Your task to perform on an android device: change the clock display to digital Image 0: 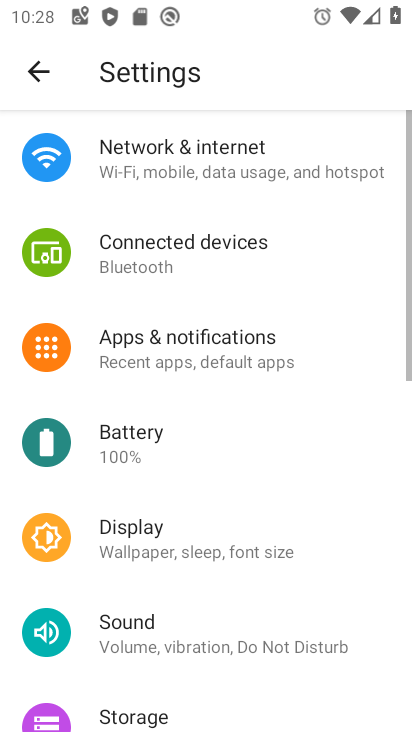
Step 0: press home button
Your task to perform on an android device: change the clock display to digital Image 1: 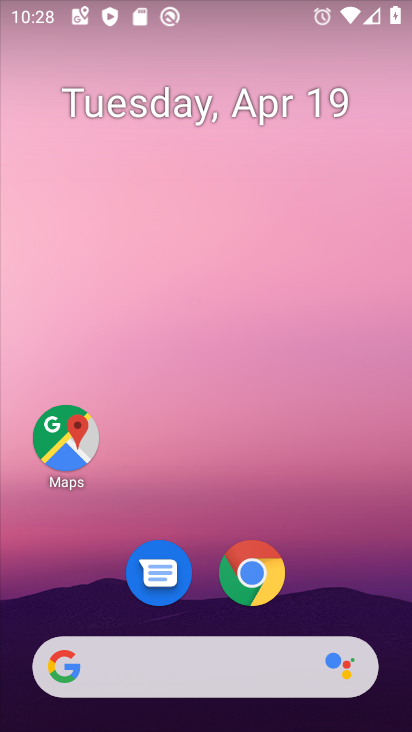
Step 1: drag from (348, 599) to (304, 136)
Your task to perform on an android device: change the clock display to digital Image 2: 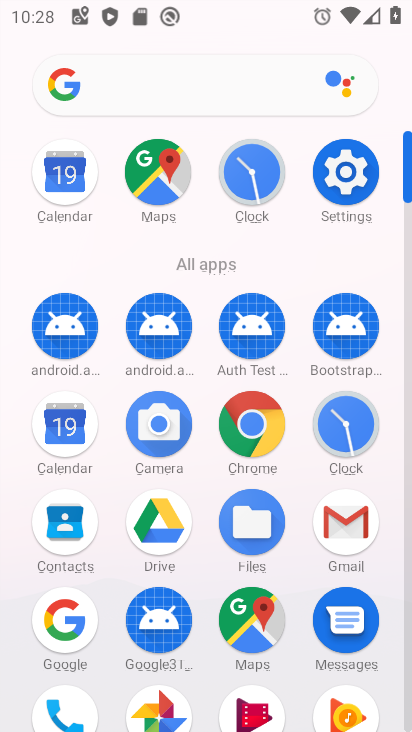
Step 2: click (250, 182)
Your task to perform on an android device: change the clock display to digital Image 3: 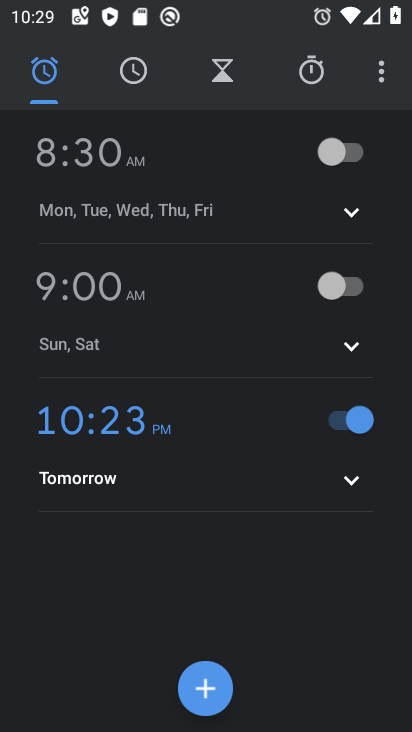
Step 3: click (386, 67)
Your task to perform on an android device: change the clock display to digital Image 4: 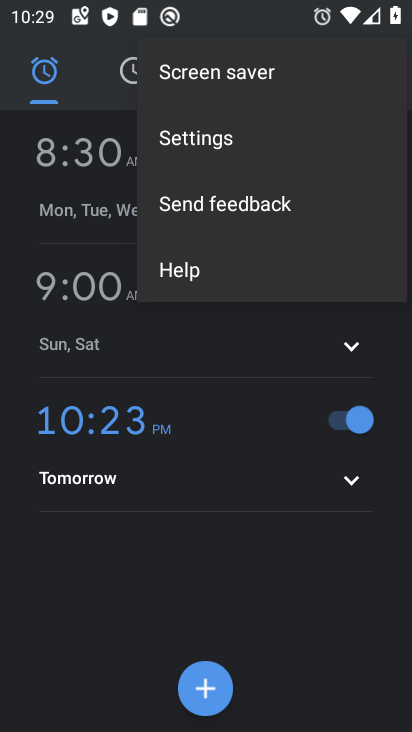
Step 4: click (226, 136)
Your task to perform on an android device: change the clock display to digital Image 5: 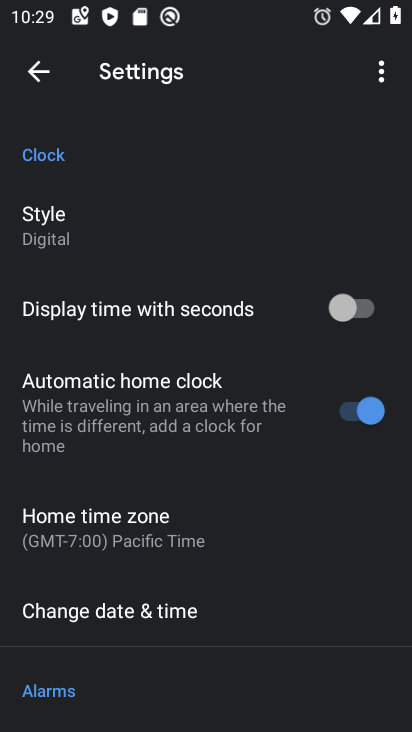
Step 5: click (50, 241)
Your task to perform on an android device: change the clock display to digital Image 6: 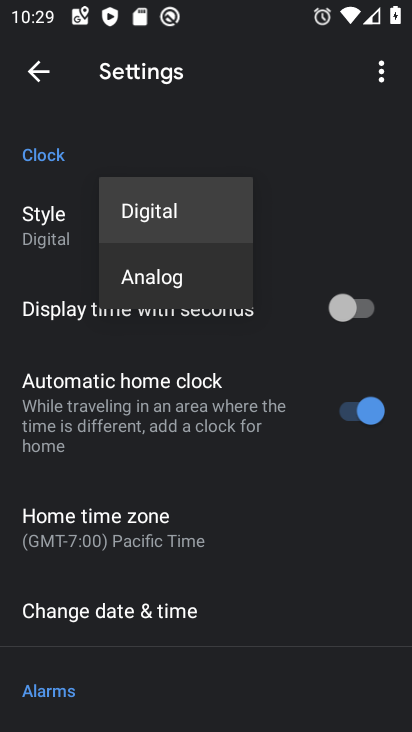
Step 6: task complete